Your task to perform on an android device: create a new album in the google photos Image 0: 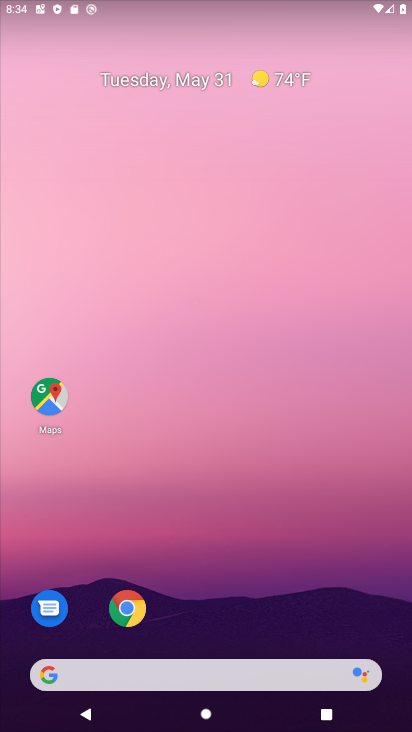
Step 0: drag from (238, 633) to (209, 120)
Your task to perform on an android device: create a new album in the google photos Image 1: 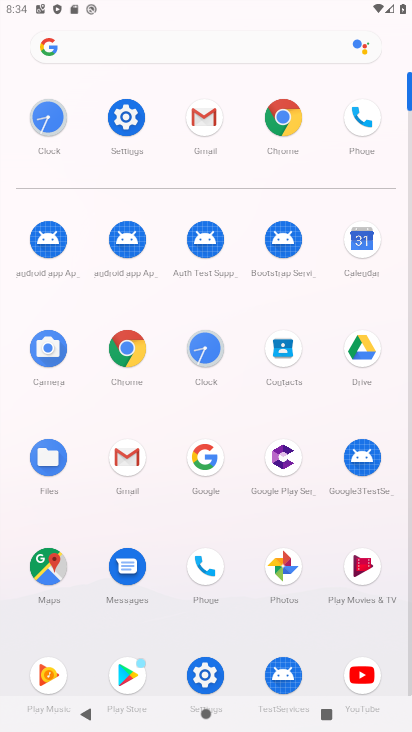
Step 1: click (273, 567)
Your task to perform on an android device: create a new album in the google photos Image 2: 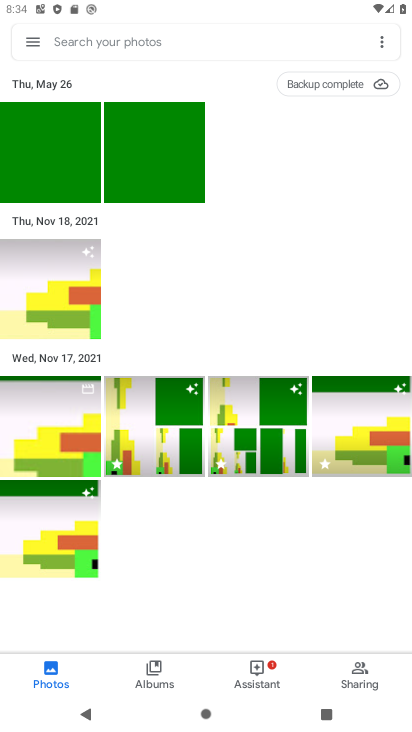
Step 2: click (35, 49)
Your task to perform on an android device: create a new album in the google photos Image 3: 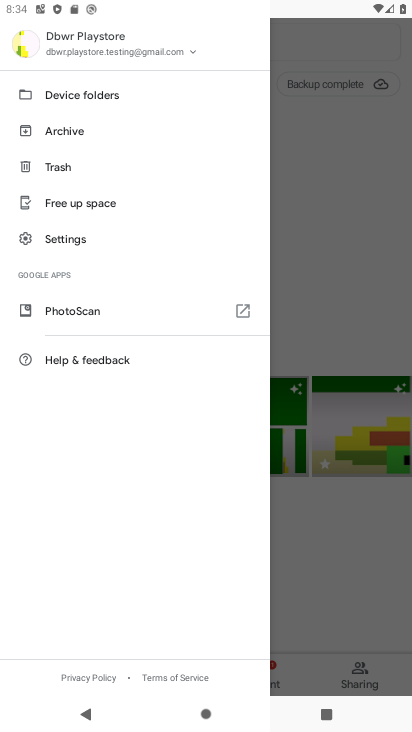
Step 3: click (325, 138)
Your task to perform on an android device: create a new album in the google photos Image 4: 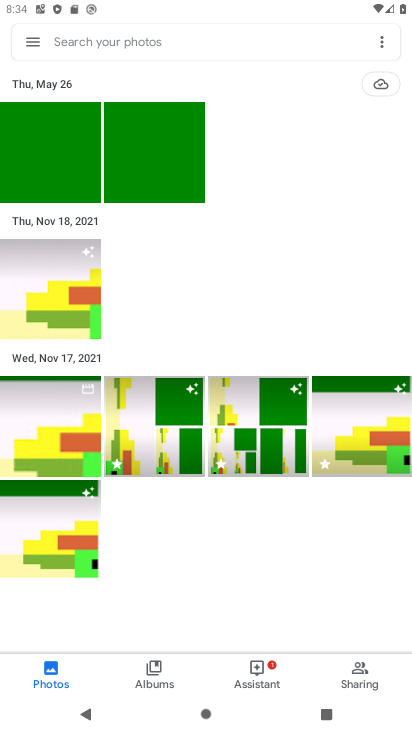
Step 4: click (37, 170)
Your task to perform on an android device: create a new album in the google photos Image 5: 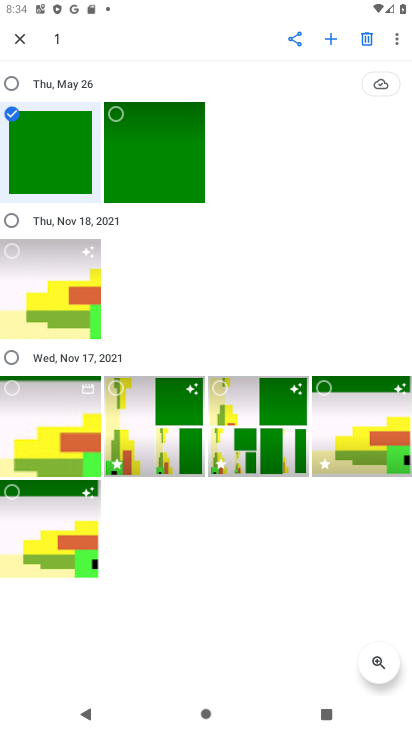
Step 5: click (108, 167)
Your task to perform on an android device: create a new album in the google photos Image 6: 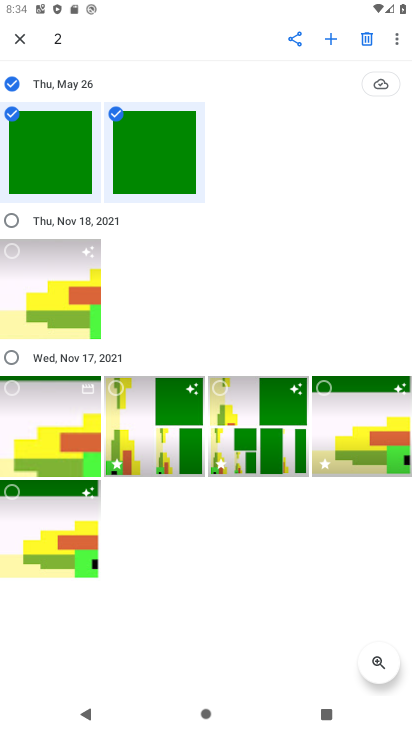
Step 6: click (14, 272)
Your task to perform on an android device: create a new album in the google photos Image 7: 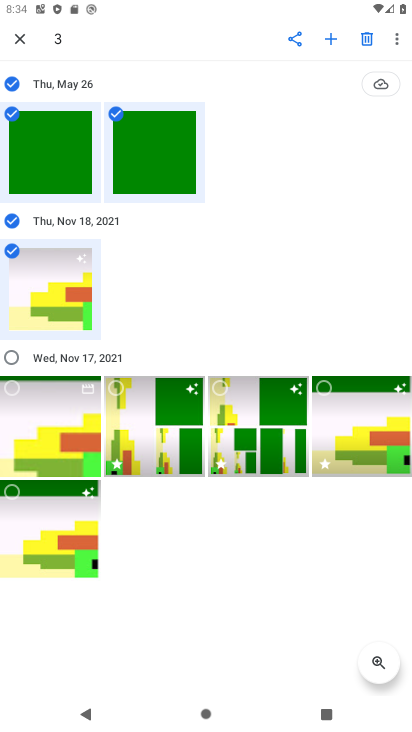
Step 7: click (335, 39)
Your task to perform on an android device: create a new album in the google photos Image 8: 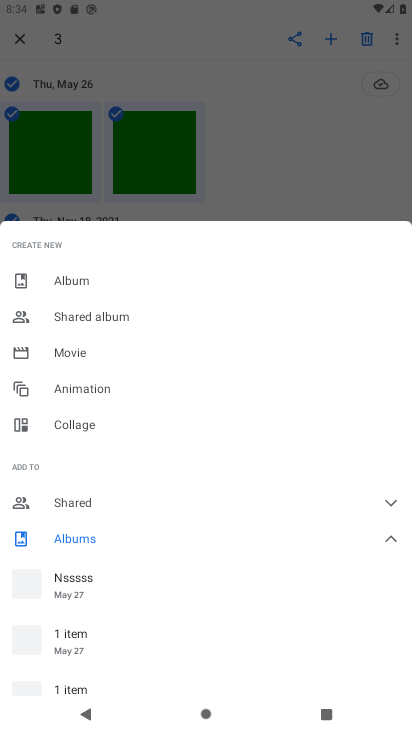
Step 8: click (46, 276)
Your task to perform on an android device: create a new album in the google photos Image 9: 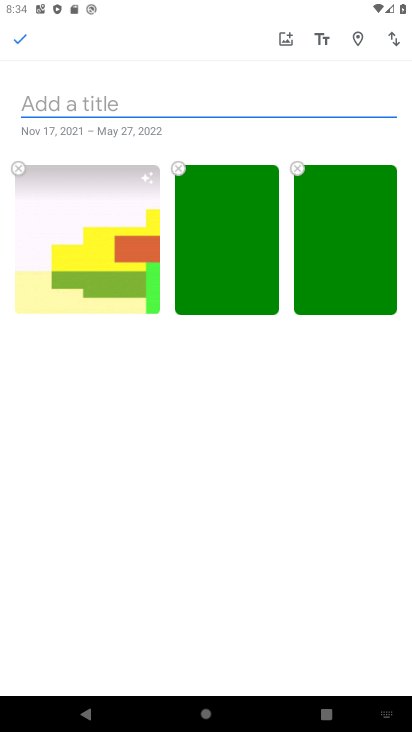
Step 9: type "bhj"
Your task to perform on an android device: create a new album in the google photos Image 10: 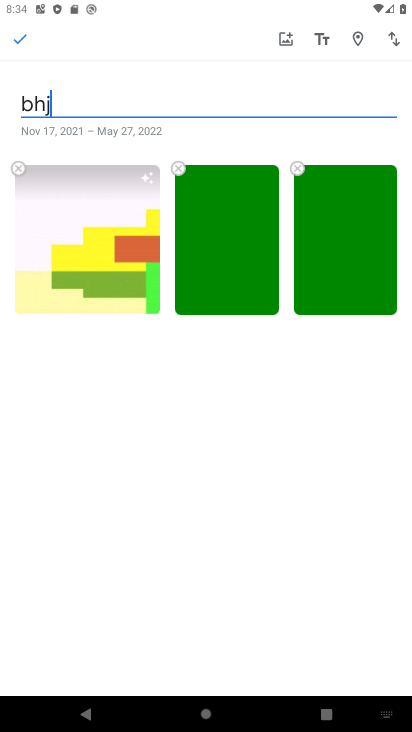
Step 10: click (19, 41)
Your task to perform on an android device: create a new album in the google photos Image 11: 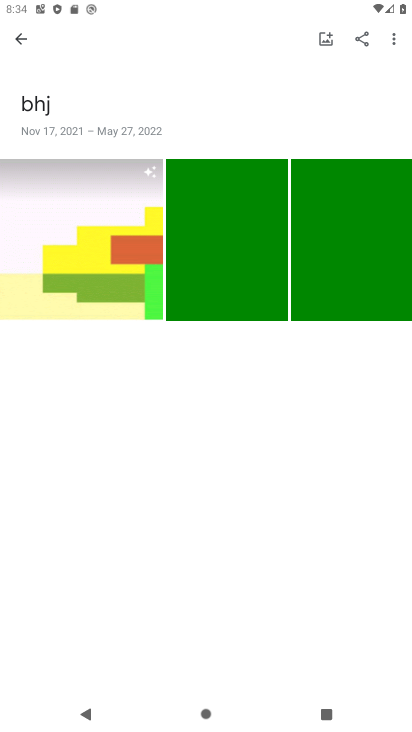
Step 11: task complete